Your task to perform on an android device: Go to notification settings Image 0: 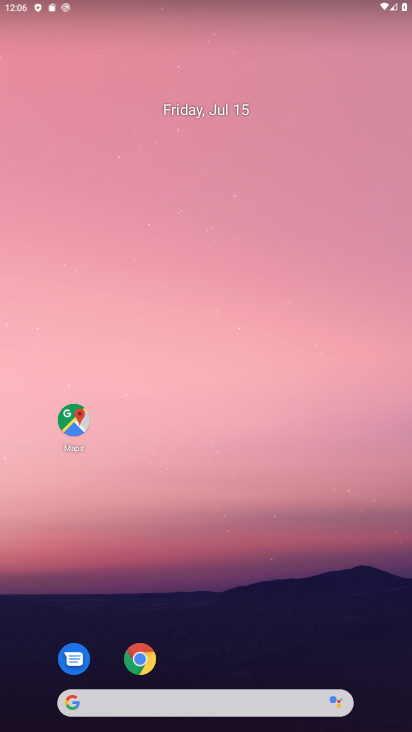
Step 0: drag from (188, 663) to (188, 190)
Your task to perform on an android device: Go to notification settings Image 1: 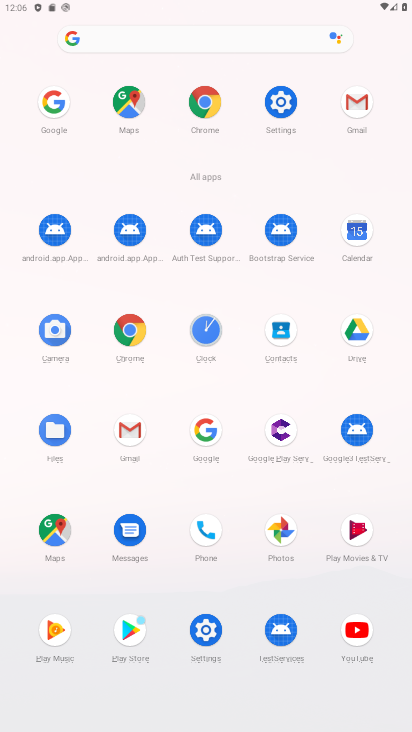
Step 1: click (293, 95)
Your task to perform on an android device: Go to notification settings Image 2: 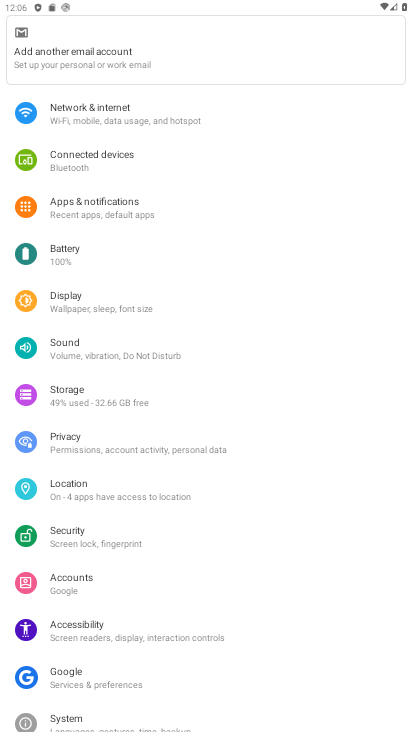
Step 2: click (148, 197)
Your task to perform on an android device: Go to notification settings Image 3: 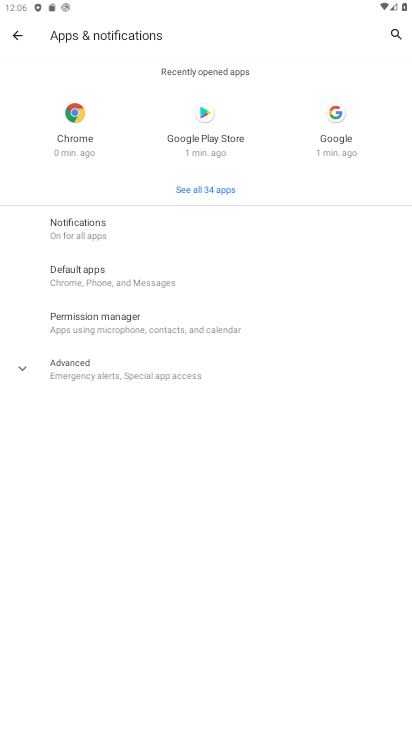
Step 3: click (103, 238)
Your task to perform on an android device: Go to notification settings Image 4: 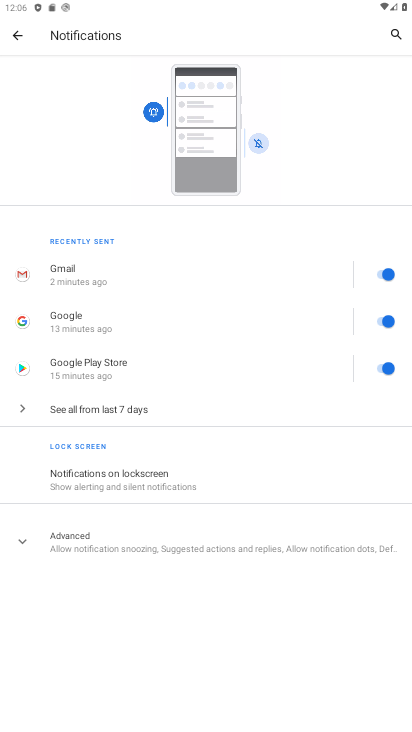
Step 4: task complete